Your task to perform on an android device: Search for a new highlighter Image 0: 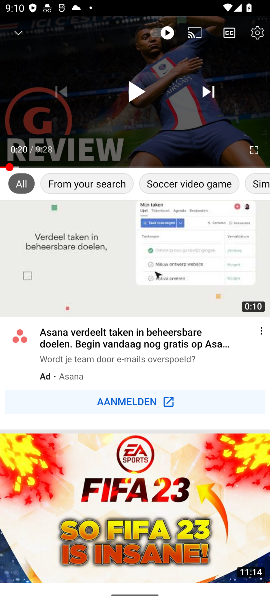
Step 0: press home button
Your task to perform on an android device: Search for a new highlighter Image 1: 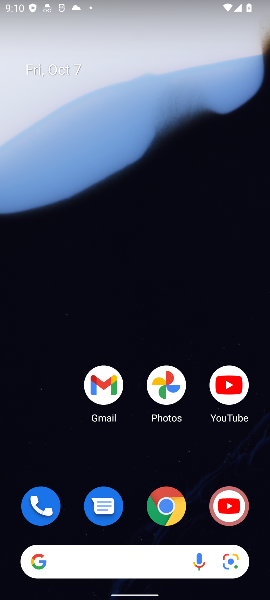
Step 1: click (168, 506)
Your task to perform on an android device: Search for a new highlighter Image 2: 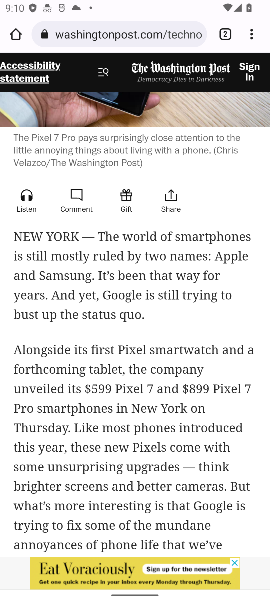
Step 2: click (149, 35)
Your task to perform on an android device: Search for a new highlighter Image 3: 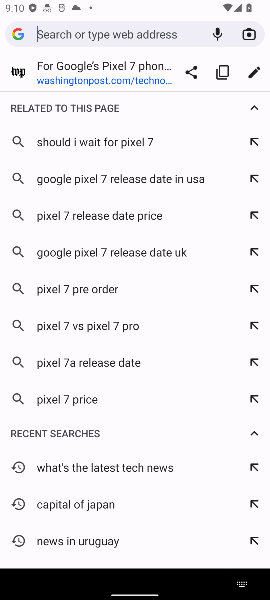
Step 3: type "new highlighter"
Your task to perform on an android device: Search for a new highlighter Image 4: 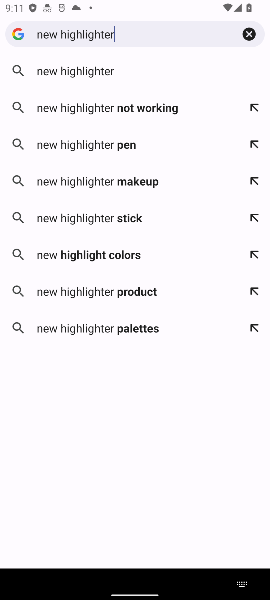
Step 4: click (102, 74)
Your task to perform on an android device: Search for a new highlighter Image 5: 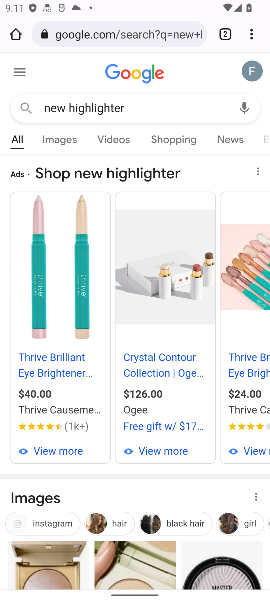
Step 5: drag from (111, 467) to (215, 134)
Your task to perform on an android device: Search for a new highlighter Image 6: 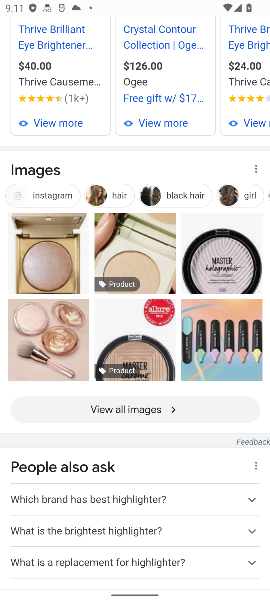
Step 6: drag from (97, 528) to (184, 172)
Your task to perform on an android device: Search for a new highlighter Image 7: 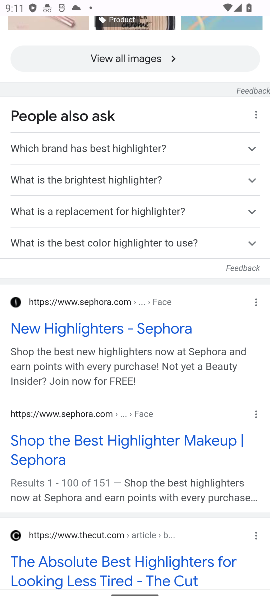
Step 7: drag from (100, 482) to (136, 301)
Your task to perform on an android device: Search for a new highlighter Image 8: 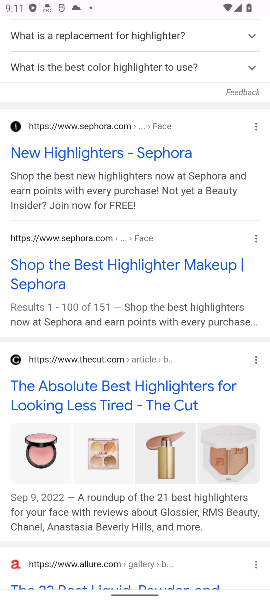
Step 8: drag from (88, 490) to (135, 358)
Your task to perform on an android device: Search for a new highlighter Image 9: 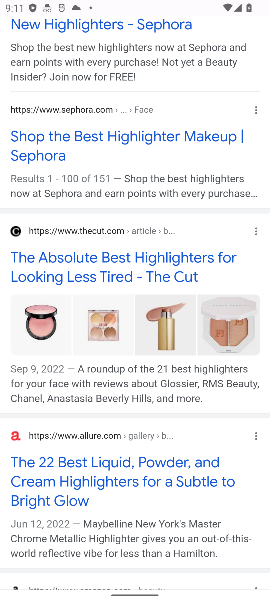
Step 9: click (80, 259)
Your task to perform on an android device: Search for a new highlighter Image 10: 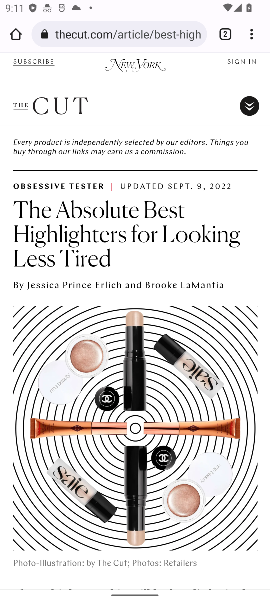
Step 10: task complete